Your task to perform on an android device: Open settings Image 0: 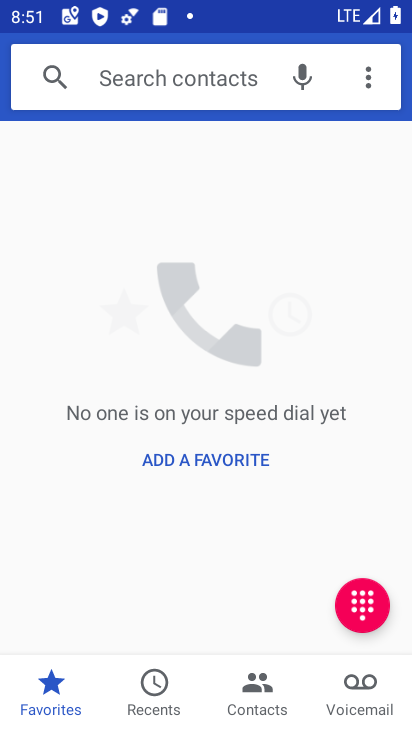
Step 0: press home button
Your task to perform on an android device: Open settings Image 1: 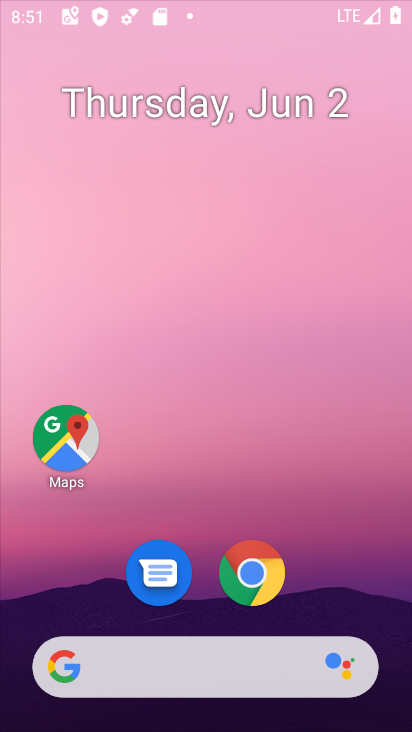
Step 1: drag from (268, 577) to (207, 207)
Your task to perform on an android device: Open settings Image 2: 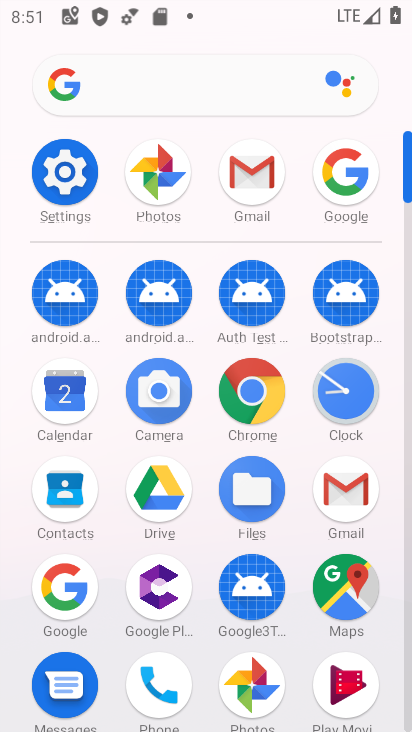
Step 2: click (77, 183)
Your task to perform on an android device: Open settings Image 3: 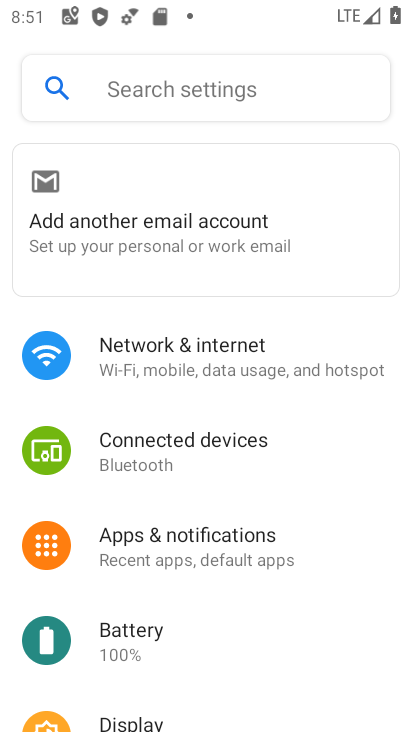
Step 3: task complete